Your task to perform on an android device: Clear the cart on bestbuy. Add "razer huntsman" to the cart on bestbuy, then select checkout. Image 0: 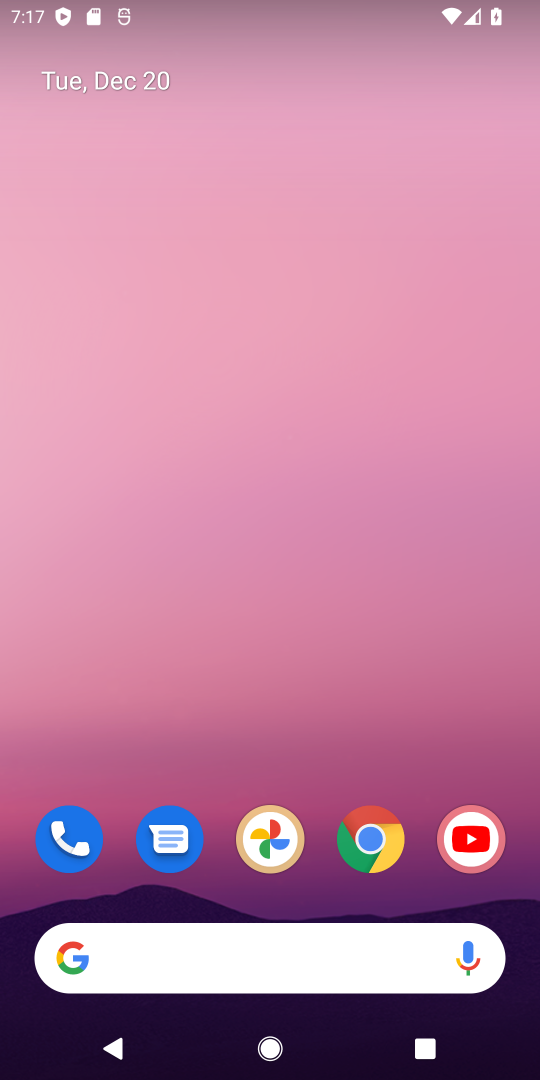
Step 0: click (306, 965)
Your task to perform on an android device: Clear the cart on bestbuy. Add "razer huntsman" to the cart on bestbuy, then select checkout. Image 1: 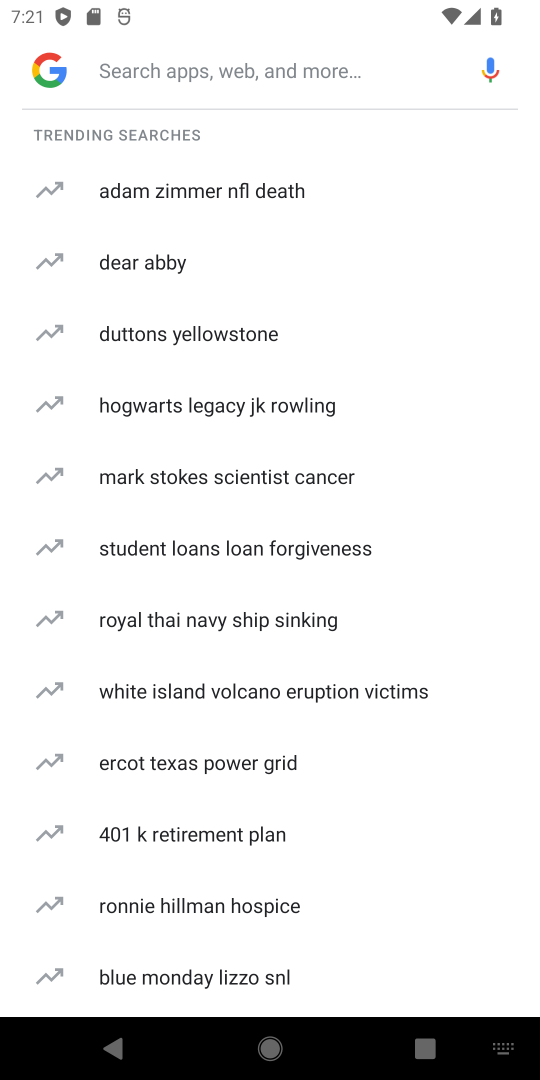
Step 1: type "bestbuy"
Your task to perform on an android device: Clear the cart on bestbuy. Add "razer huntsman" to the cart on bestbuy, then select checkout. Image 2: 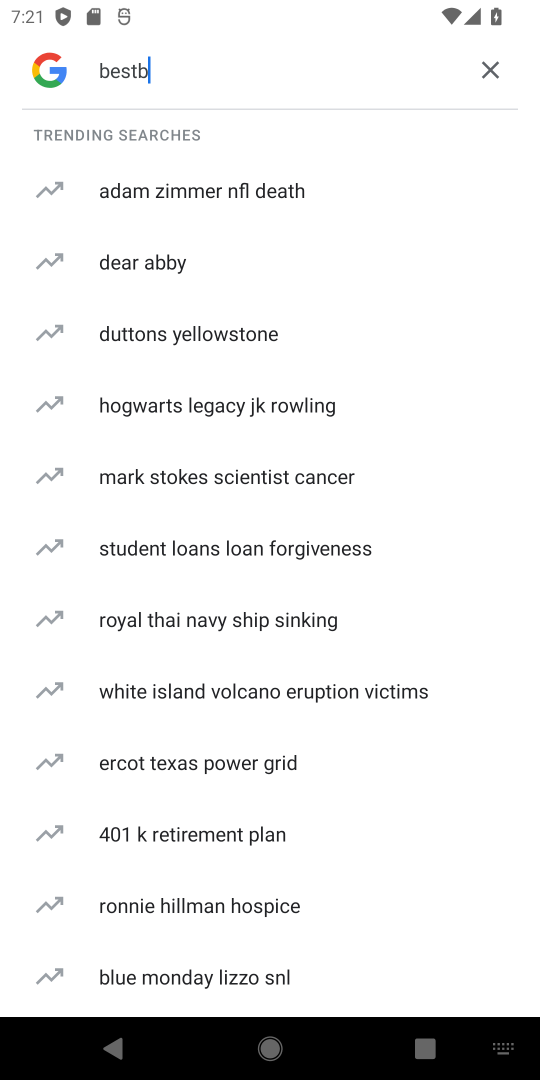
Step 2: type ""
Your task to perform on an android device: Clear the cart on bestbuy. Add "razer huntsman" to the cart on bestbuy, then select checkout. Image 3: 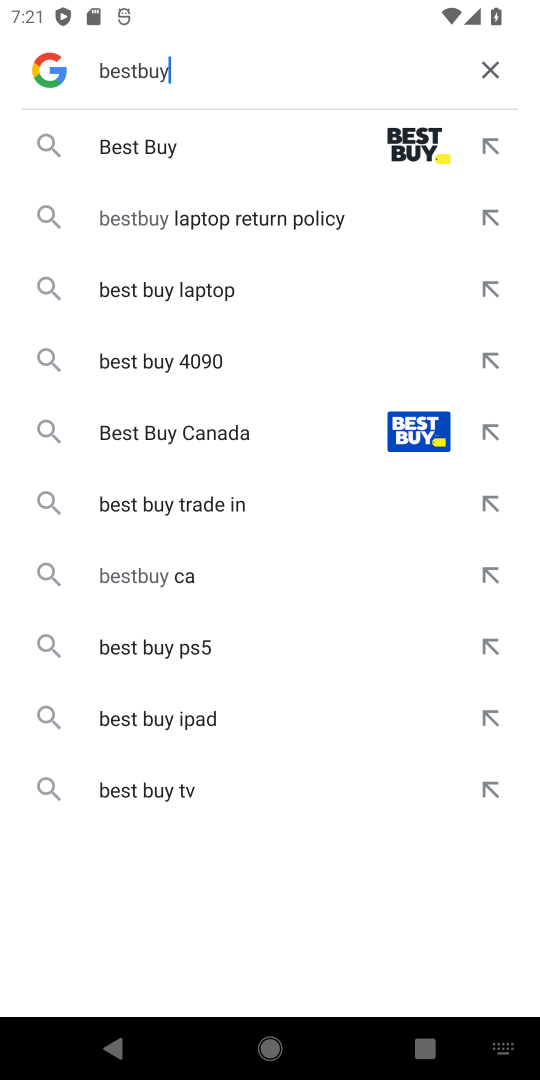
Step 3: click (240, 143)
Your task to perform on an android device: Clear the cart on bestbuy. Add "razer huntsman" to the cart on bestbuy, then select checkout. Image 4: 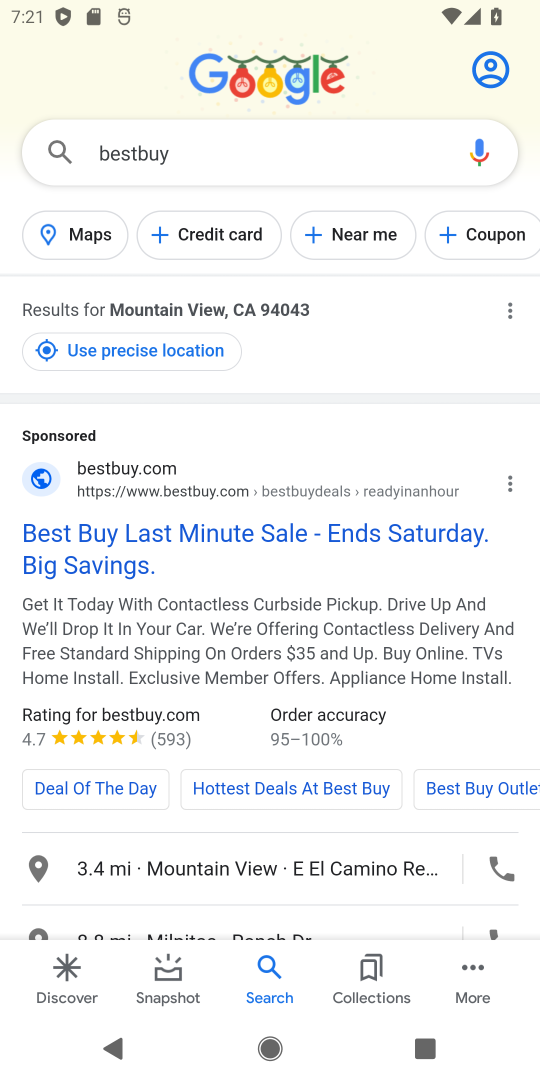
Step 4: click (115, 545)
Your task to perform on an android device: Clear the cart on bestbuy. Add "razer huntsman" to the cart on bestbuy, then select checkout. Image 5: 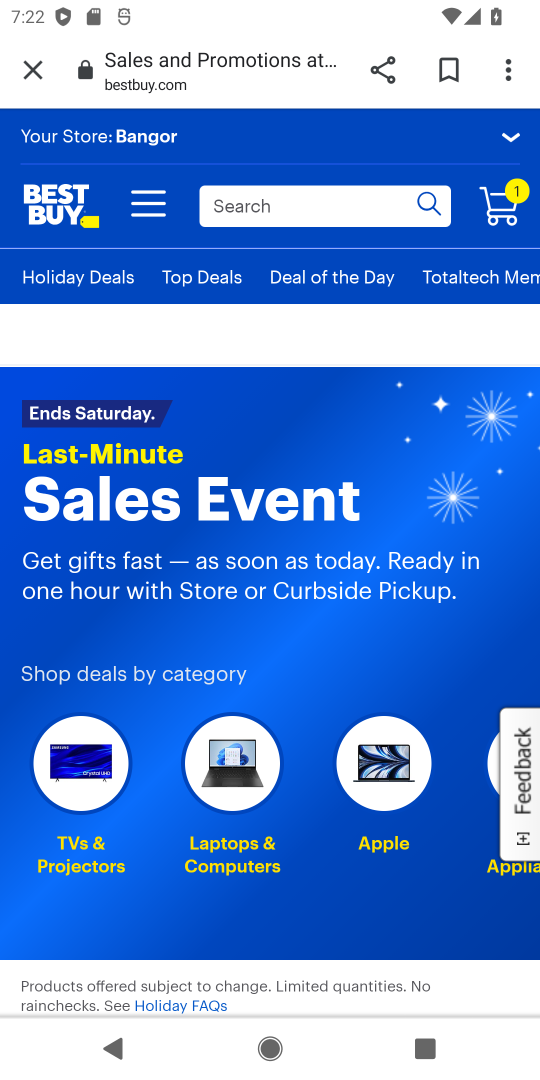
Step 5: click (274, 197)
Your task to perform on an android device: Clear the cart on bestbuy. Add "razer huntsman" to the cart on bestbuy, then select checkout. Image 6: 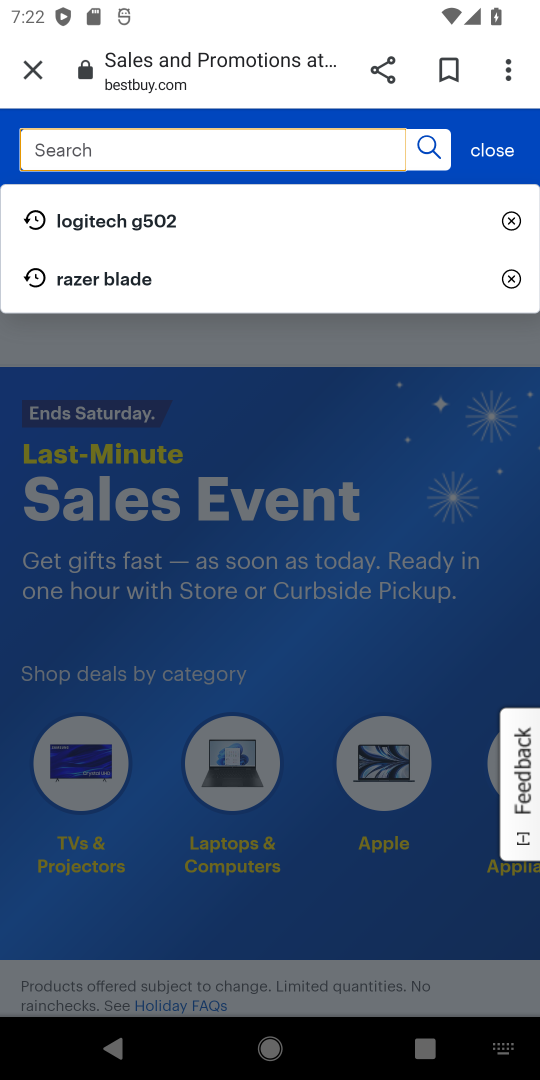
Step 6: type ""razer huntsman""
Your task to perform on an android device: Clear the cart on bestbuy. Add "razer huntsman" to the cart on bestbuy, then select checkout. Image 7: 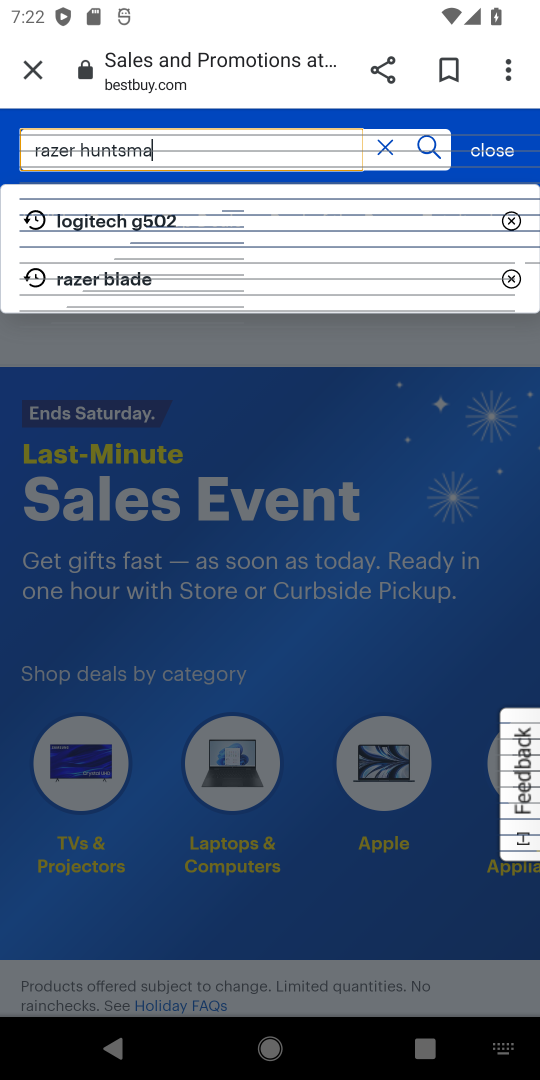
Step 7: type ""
Your task to perform on an android device: Clear the cart on bestbuy. Add "razer huntsman" to the cart on bestbuy, then select checkout. Image 8: 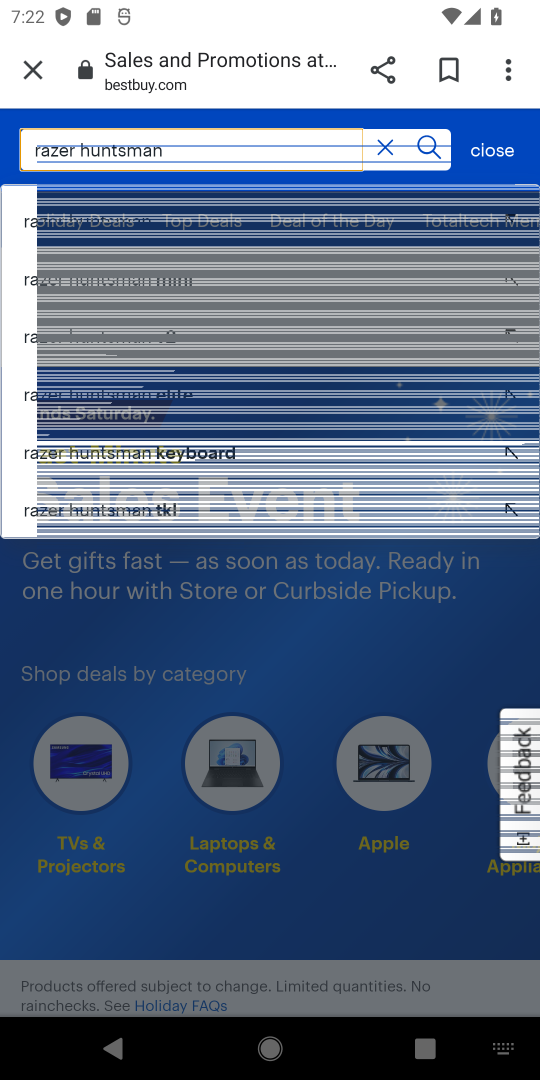
Step 8: click (118, 221)
Your task to perform on an android device: Clear the cart on bestbuy. Add "razer huntsman" to the cart on bestbuy, then select checkout. Image 9: 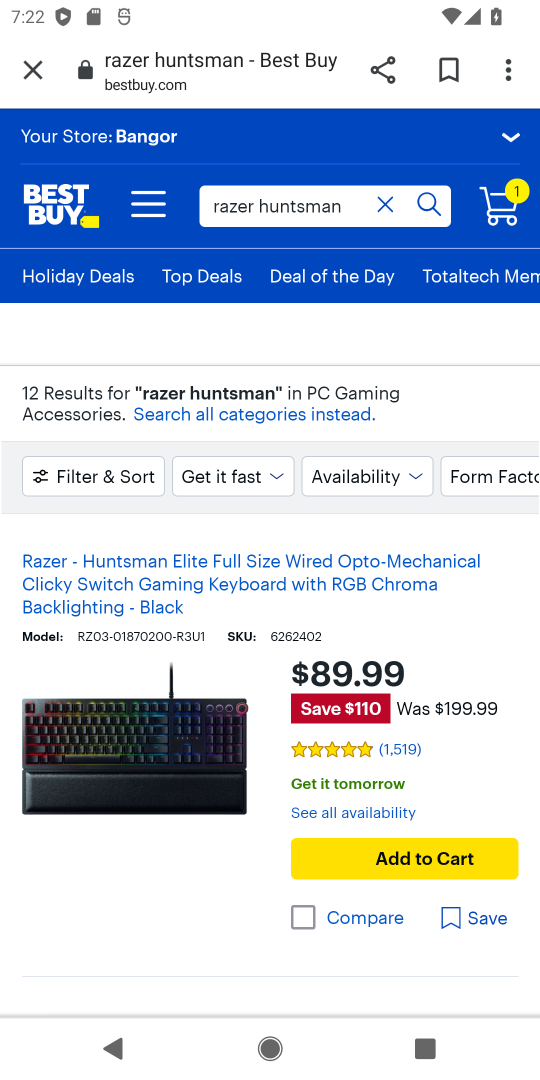
Step 9: click (407, 809)
Your task to perform on an android device: Clear the cart on bestbuy. Add "razer huntsman" to the cart on bestbuy, then select checkout. Image 10: 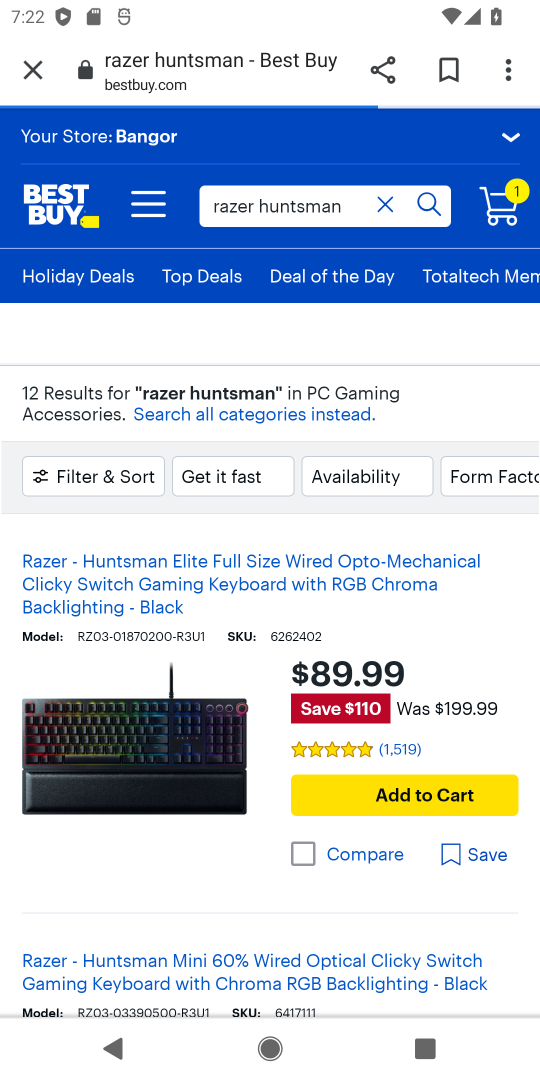
Step 10: click (410, 848)
Your task to perform on an android device: Clear the cart on bestbuy. Add "razer huntsman" to the cart on bestbuy, then select checkout. Image 11: 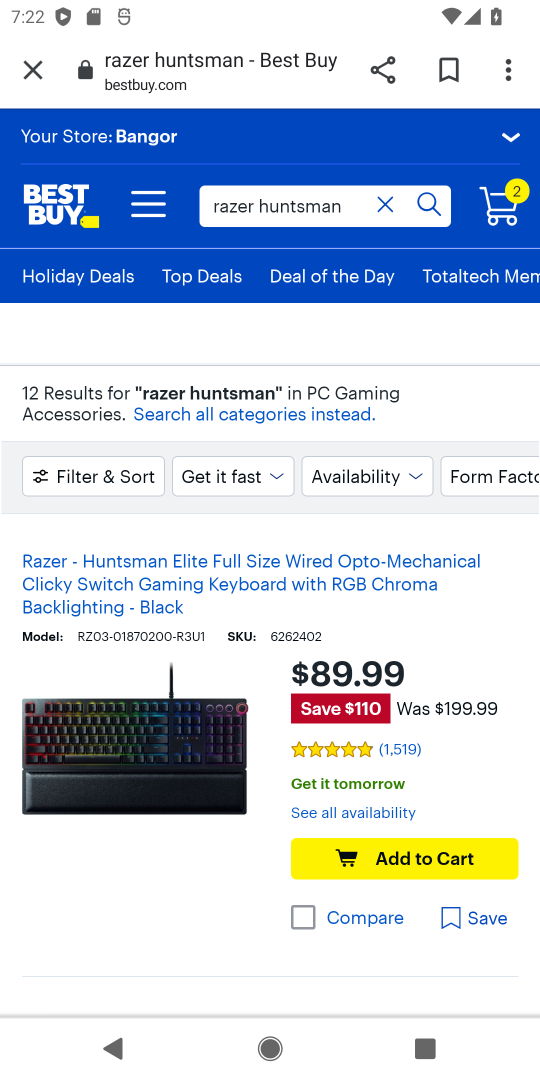
Step 11: click (491, 211)
Your task to perform on an android device: Clear the cart on bestbuy. Add "razer huntsman" to the cart on bestbuy, then select checkout. Image 12: 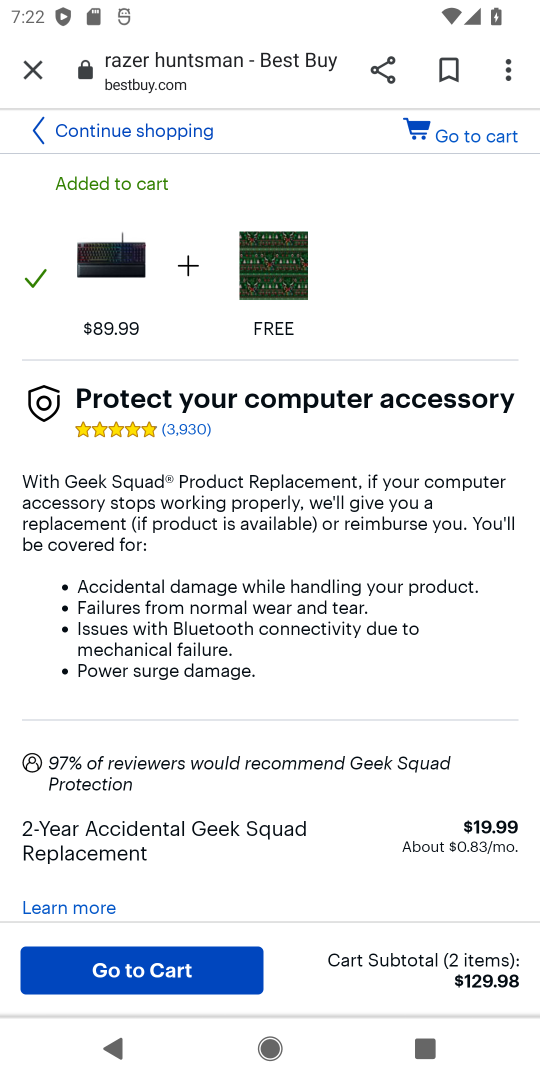
Step 12: drag from (316, 737) to (295, 361)
Your task to perform on an android device: Clear the cart on bestbuy. Add "razer huntsman" to the cart on bestbuy, then select checkout. Image 13: 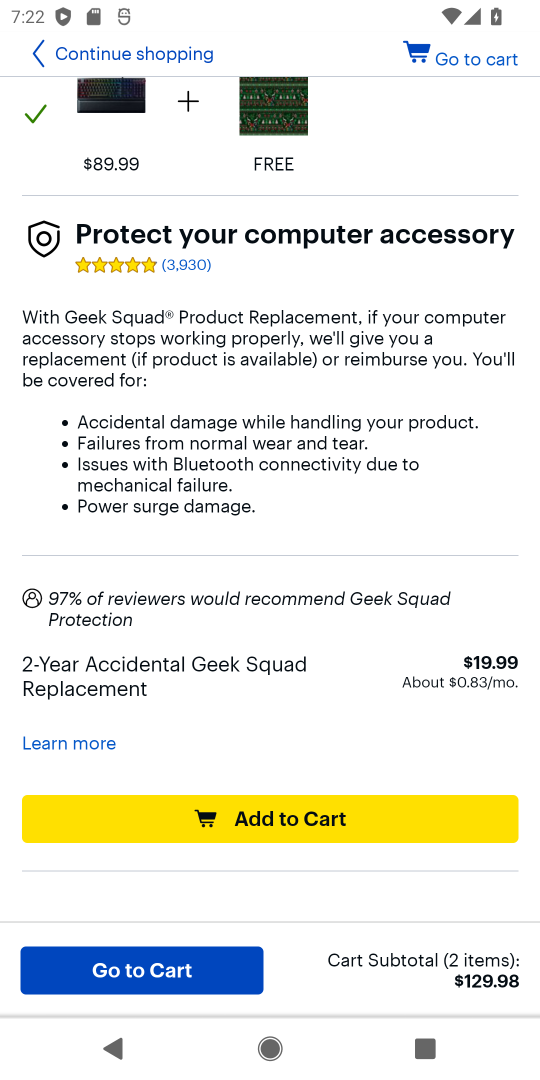
Step 13: click (142, 971)
Your task to perform on an android device: Clear the cart on bestbuy. Add "razer huntsman" to the cart on bestbuy, then select checkout. Image 14: 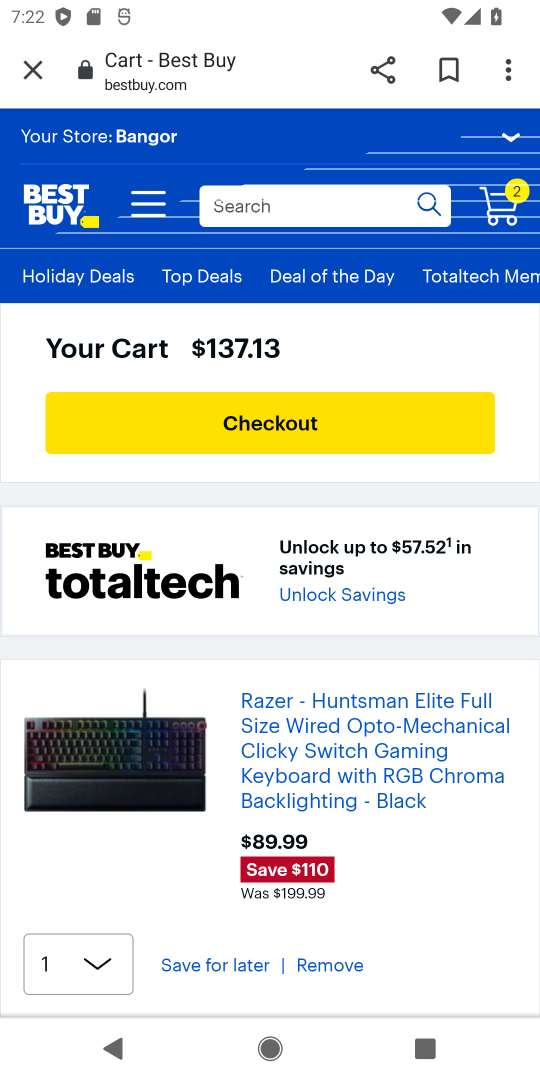
Step 14: click (251, 397)
Your task to perform on an android device: Clear the cart on bestbuy. Add "razer huntsman" to the cart on bestbuy, then select checkout. Image 15: 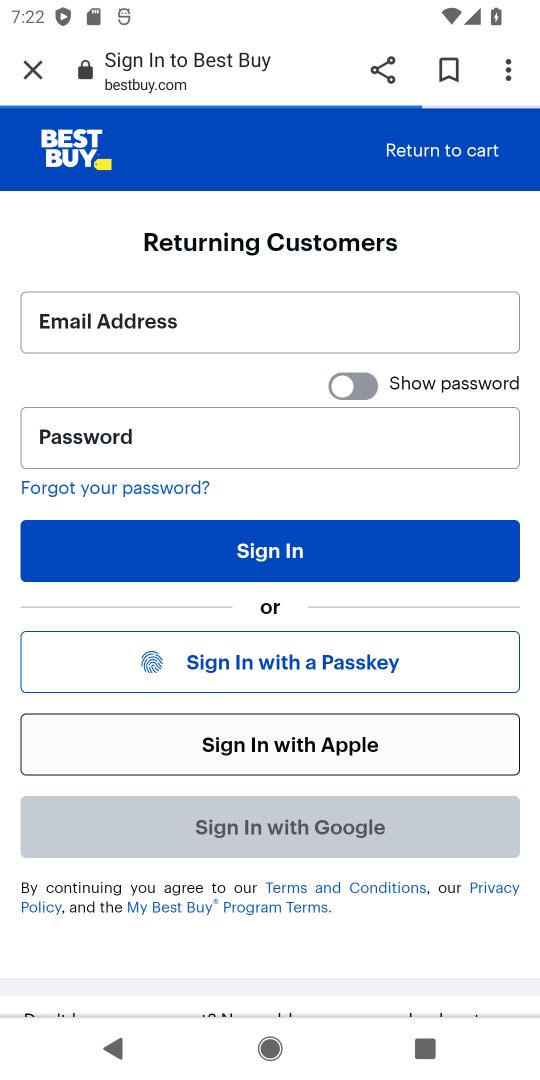
Step 15: task complete